Your task to perform on an android device: stop showing notifications on the lock screen Image 0: 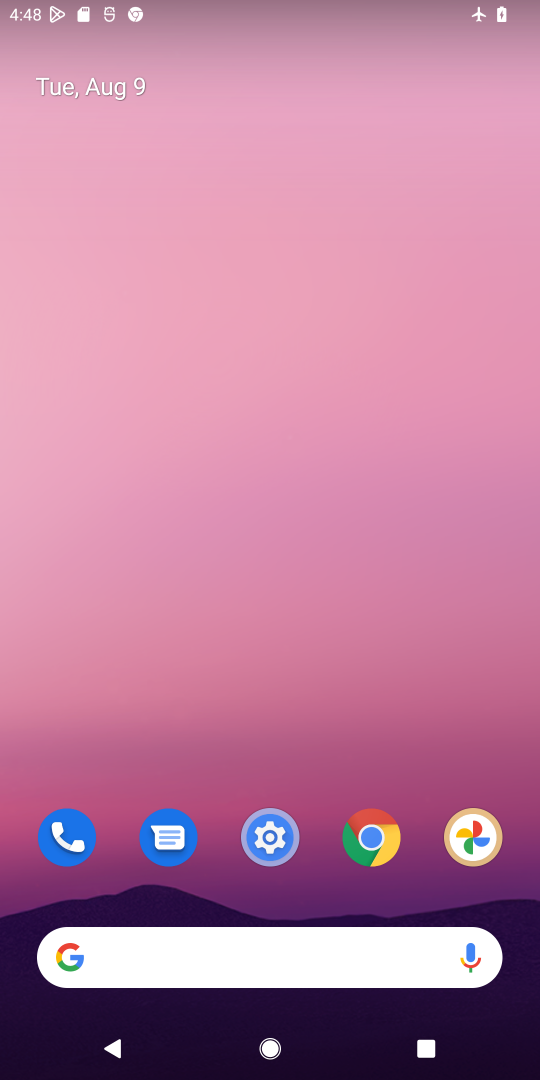
Step 0: drag from (269, 881) to (285, 226)
Your task to perform on an android device: stop showing notifications on the lock screen Image 1: 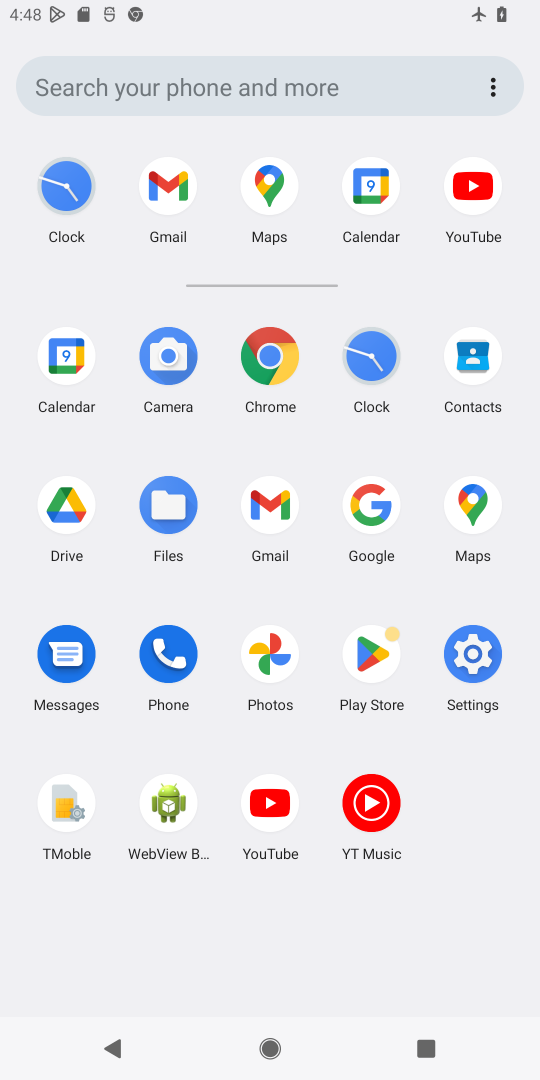
Step 1: click (463, 635)
Your task to perform on an android device: stop showing notifications on the lock screen Image 2: 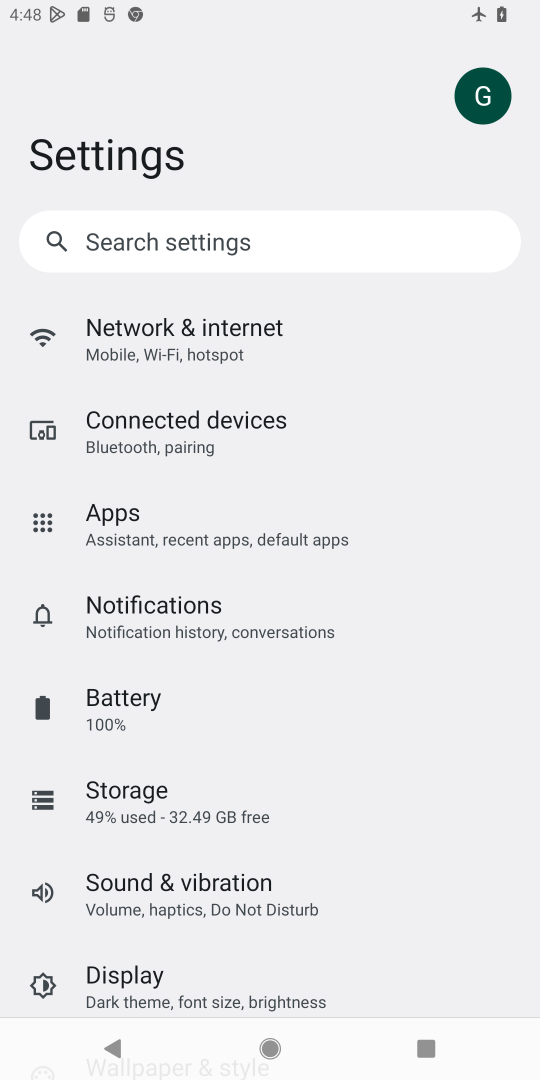
Step 2: click (152, 342)
Your task to perform on an android device: stop showing notifications on the lock screen Image 3: 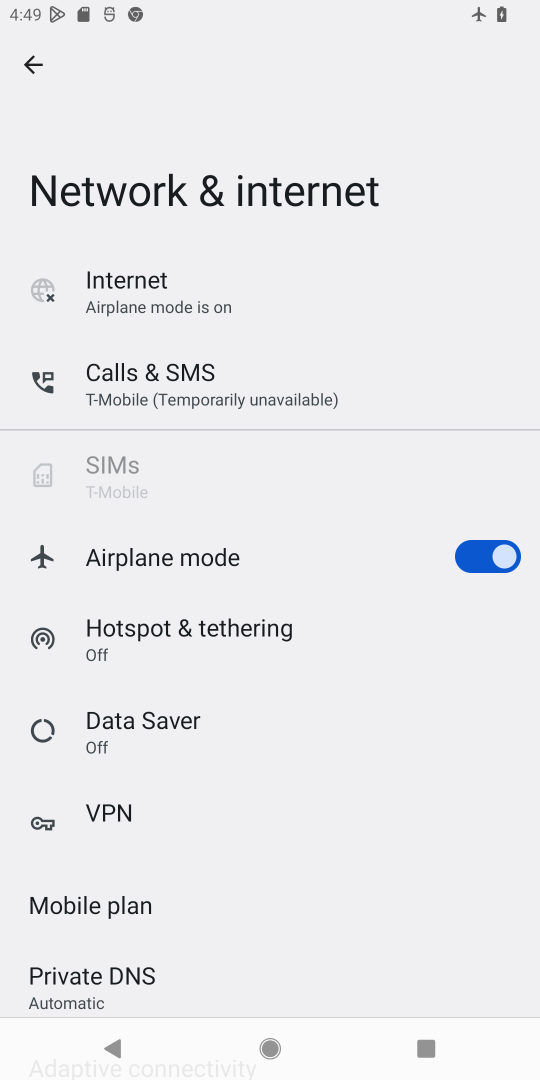
Step 3: click (58, 77)
Your task to perform on an android device: stop showing notifications on the lock screen Image 4: 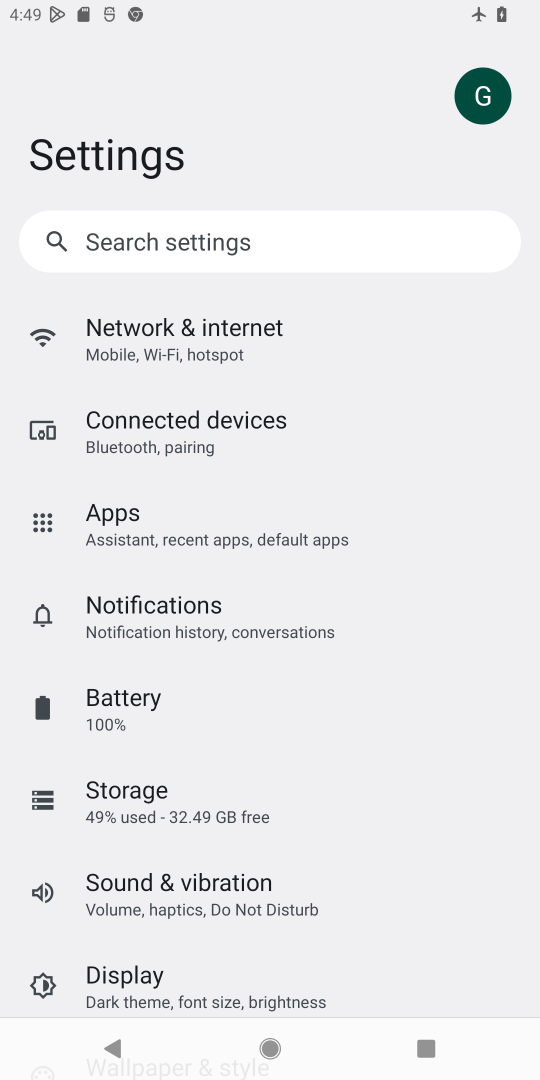
Step 4: click (203, 609)
Your task to perform on an android device: stop showing notifications on the lock screen Image 5: 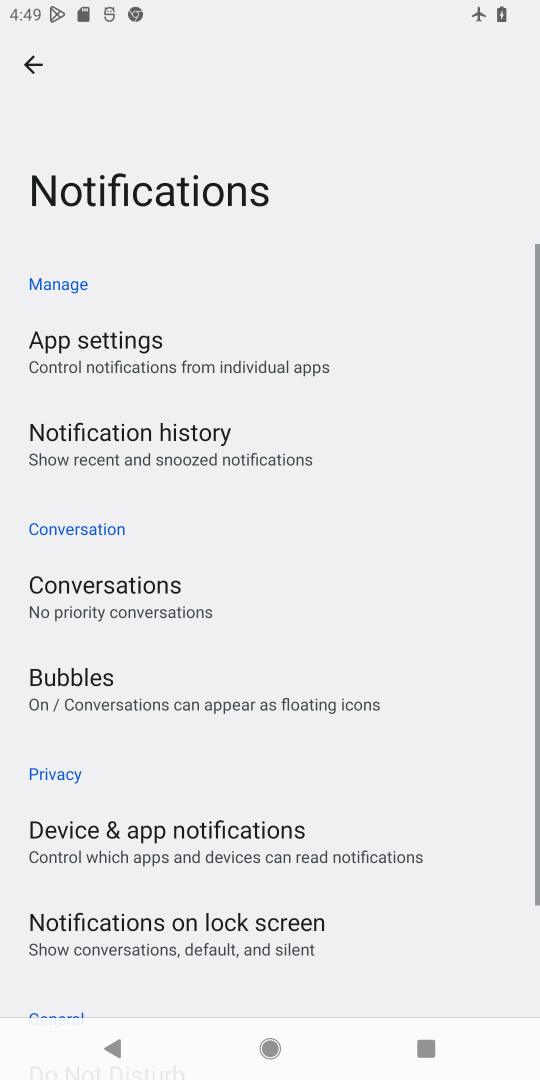
Step 5: click (231, 910)
Your task to perform on an android device: stop showing notifications on the lock screen Image 6: 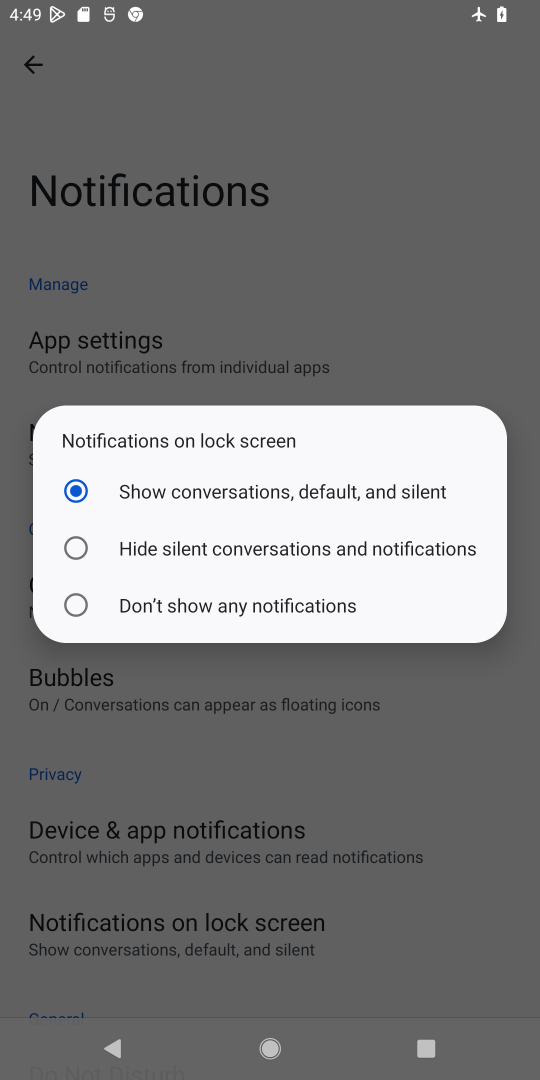
Step 6: click (268, 602)
Your task to perform on an android device: stop showing notifications on the lock screen Image 7: 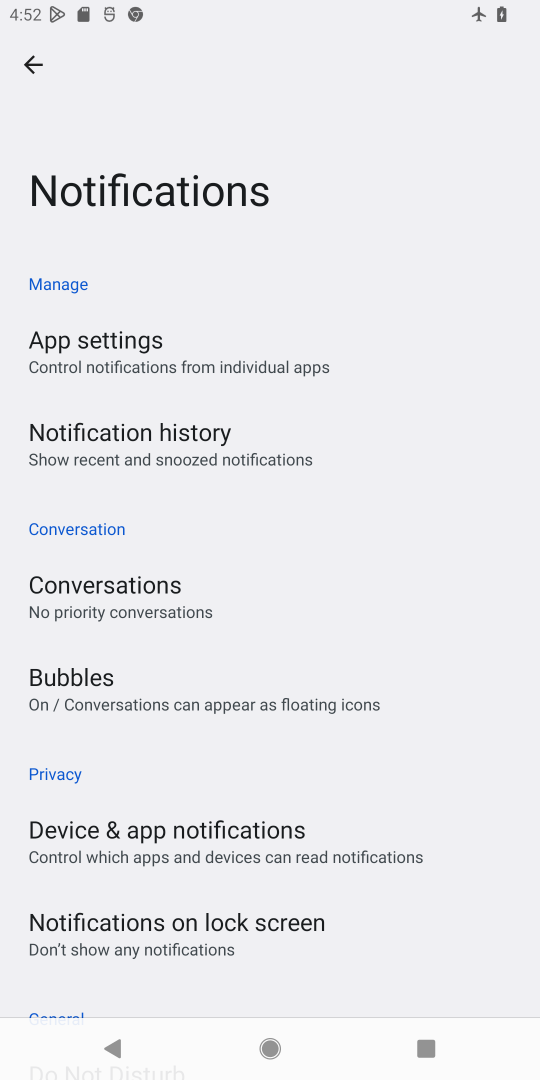
Step 7: task complete